Your task to perform on an android device: Open Chrome and go to settings Image 0: 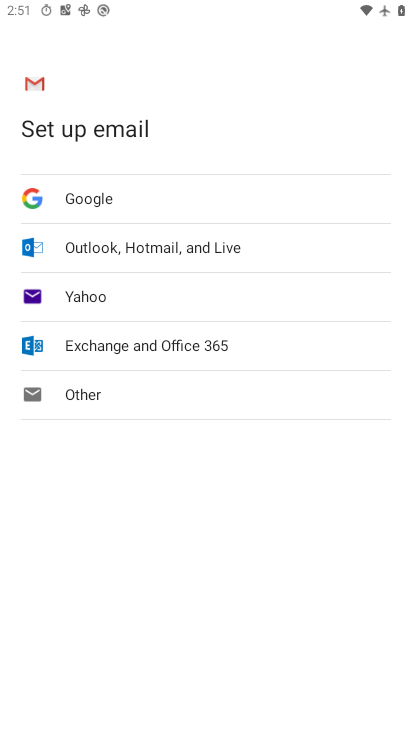
Step 0: press home button
Your task to perform on an android device: Open Chrome and go to settings Image 1: 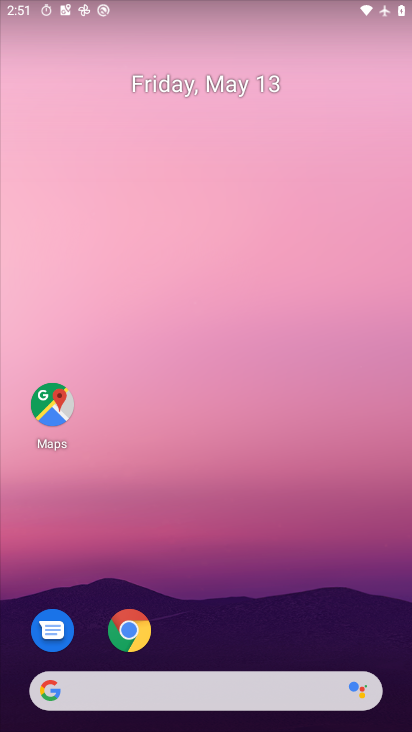
Step 1: drag from (244, 606) to (279, 192)
Your task to perform on an android device: Open Chrome and go to settings Image 2: 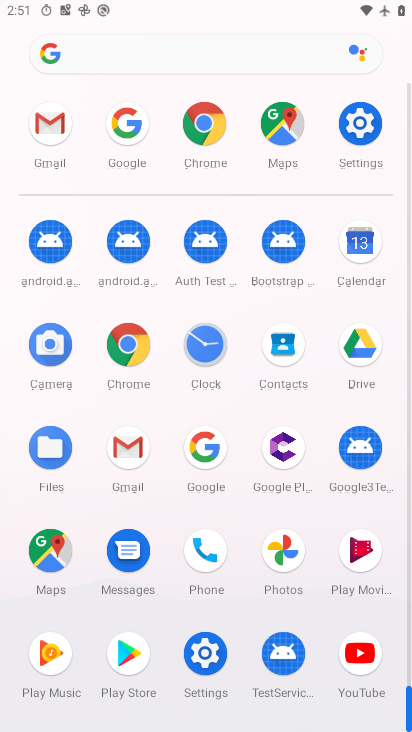
Step 2: click (140, 357)
Your task to perform on an android device: Open Chrome and go to settings Image 3: 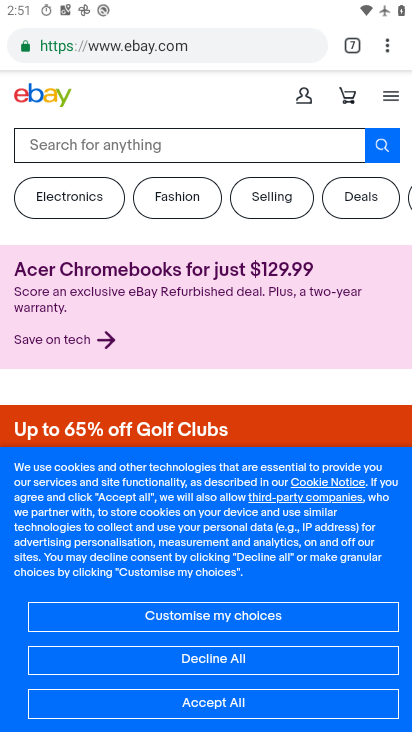
Step 3: click (381, 49)
Your task to perform on an android device: Open Chrome and go to settings Image 4: 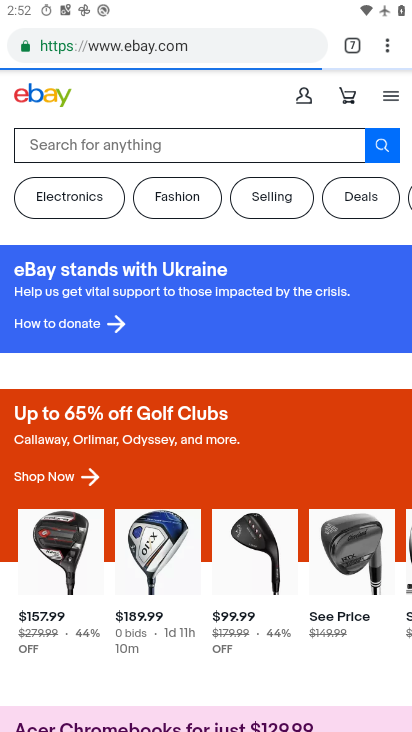
Step 4: click (390, 50)
Your task to perform on an android device: Open Chrome and go to settings Image 5: 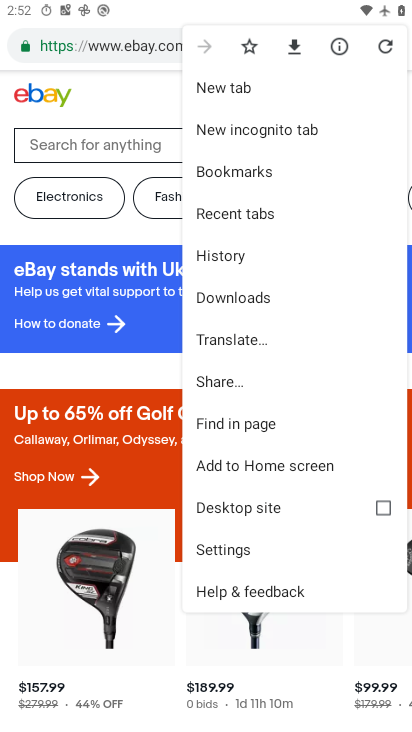
Step 5: click (267, 549)
Your task to perform on an android device: Open Chrome and go to settings Image 6: 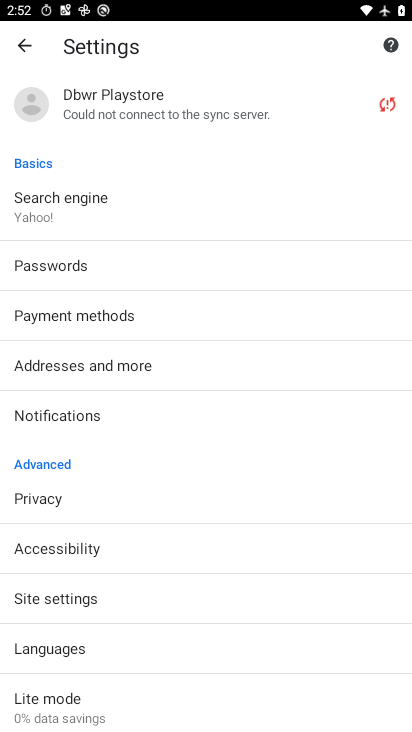
Step 6: task complete